Your task to perform on an android device: Open Google Maps and go to "Timeline" Image 0: 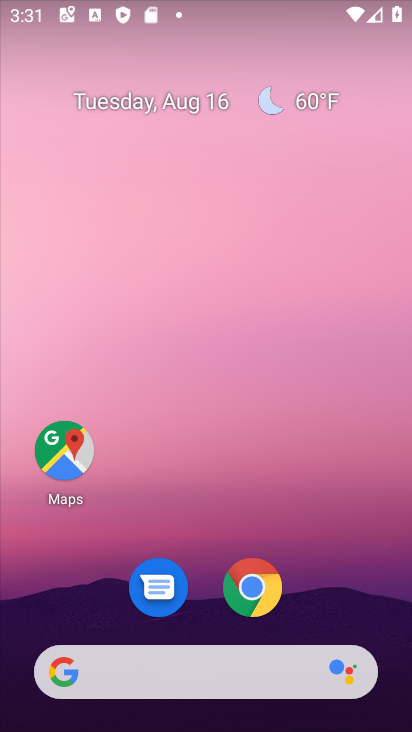
Step 0: click (59, 447)
Your task to perform on an android device: Open Google Maps and go to "Timeline" Image 1: 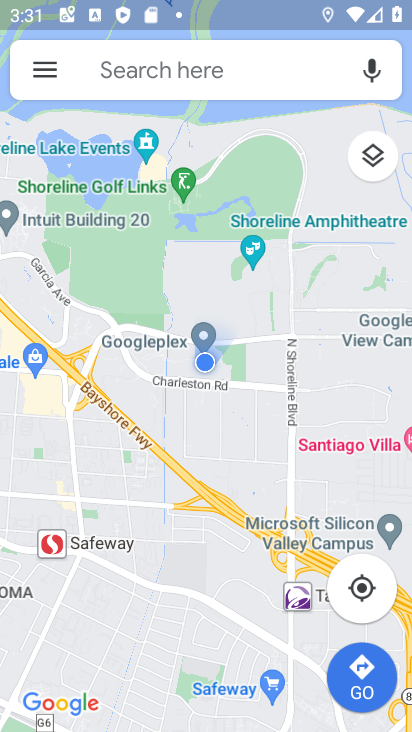
Step 1: click (41, 71)
Your task to perform on an android device: Open Google Maps and go to "Timeline" Image 2: 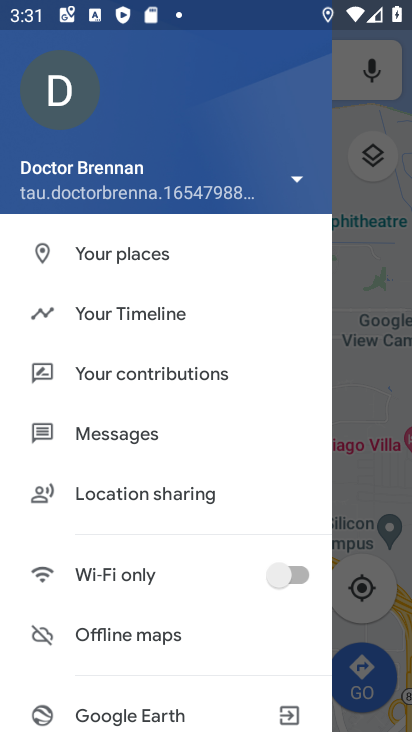
Step 2: click (120, 308)
Your task to perform on an android device: Open Google Maps and go to "Timeline" Image 3: 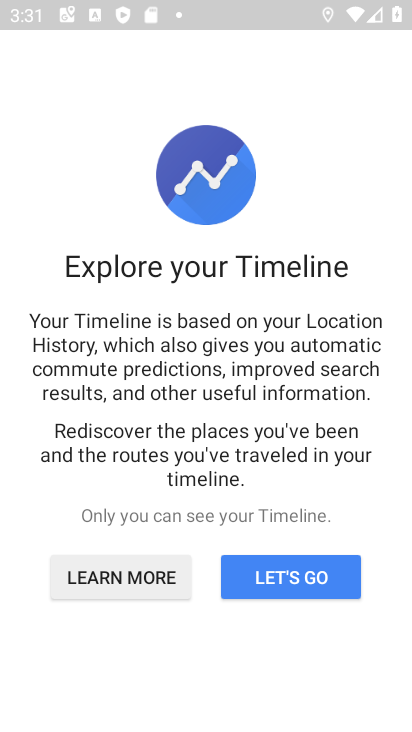
Step 3: click (278, 571)
Your task to perform on an android device: Open Google Maps and go to "Timeline" Image 4: 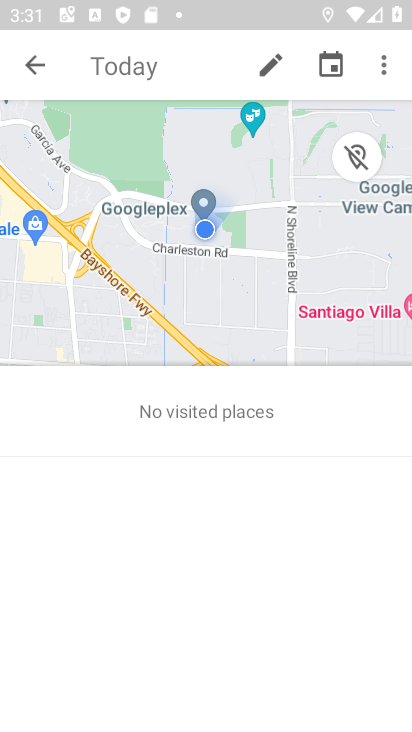
Step 4: task complete